Your task to perform on an android device: toggle notifications settings in the gmail app Image 0: 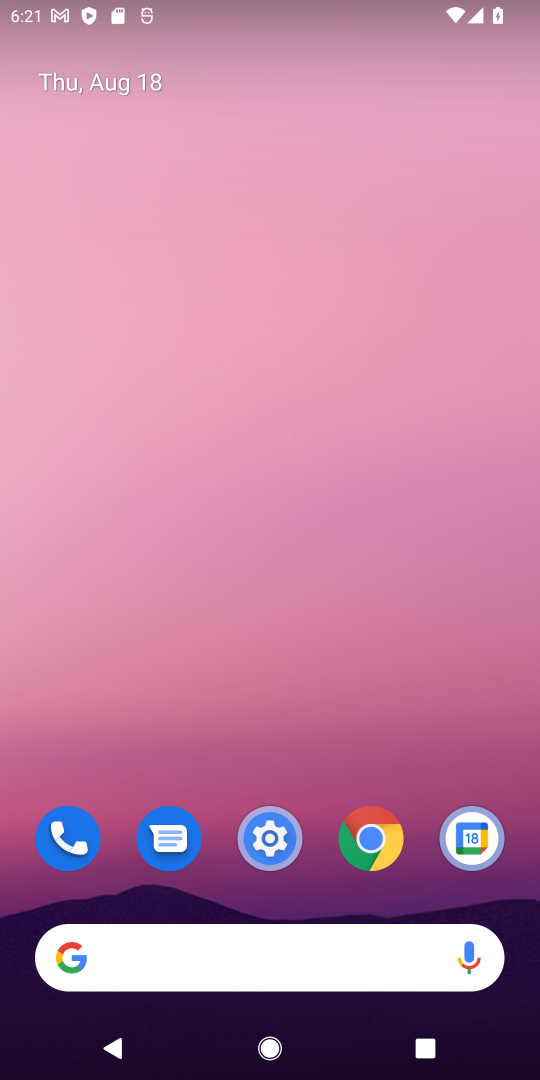
Step 0: press home button
Your task to perform on an android device: toggle notifications settings in the gmail app Image 1: 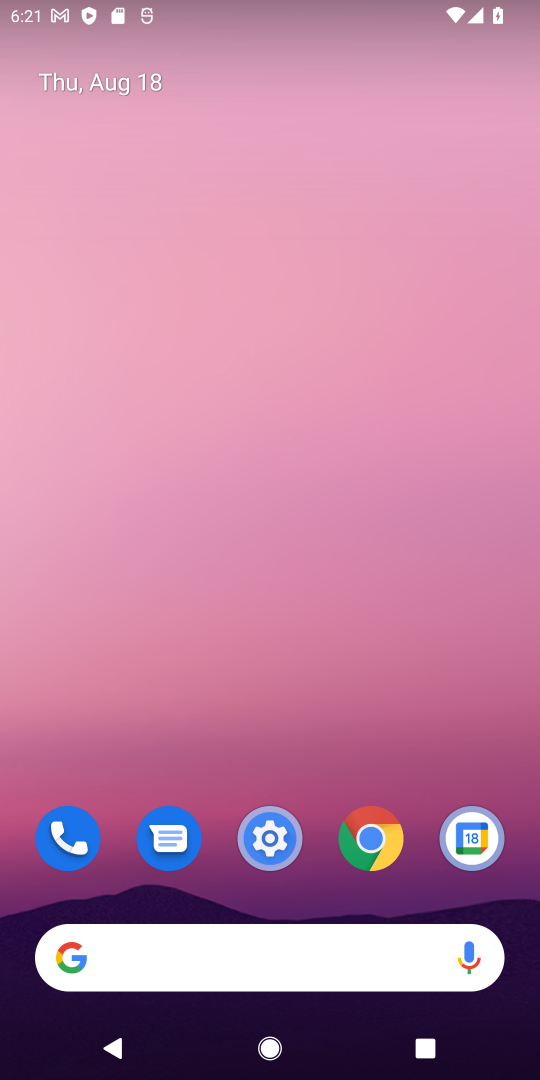
Step 1: drag from (334, 891) to (338, 21)
Your task to perform on an android device: toggle notifications settings in the gmail app Image 2: 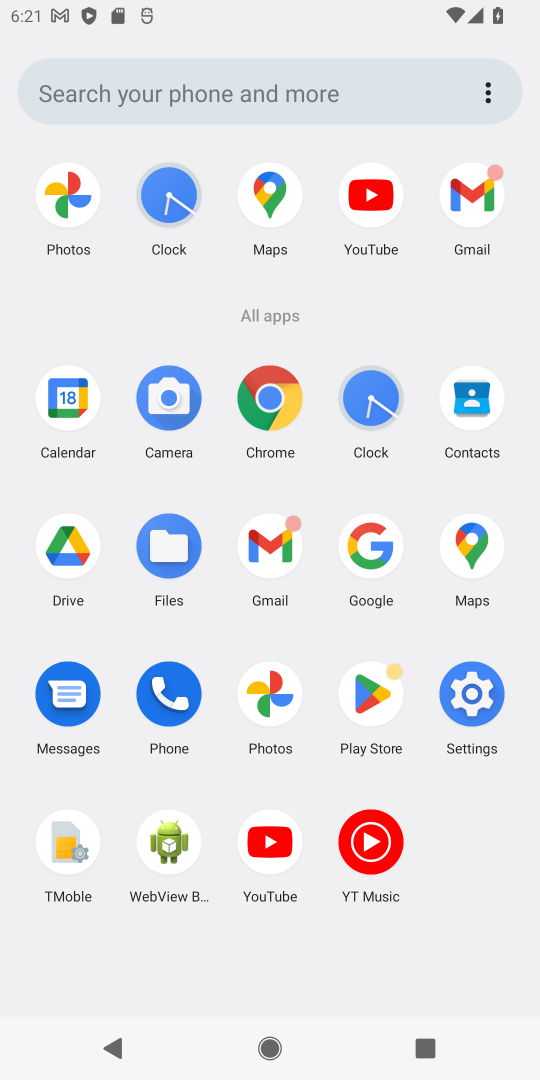
Step 2: click (467, 182)
Your task to perform on an android device: toggle notifications settings in the gmail app Image 3: 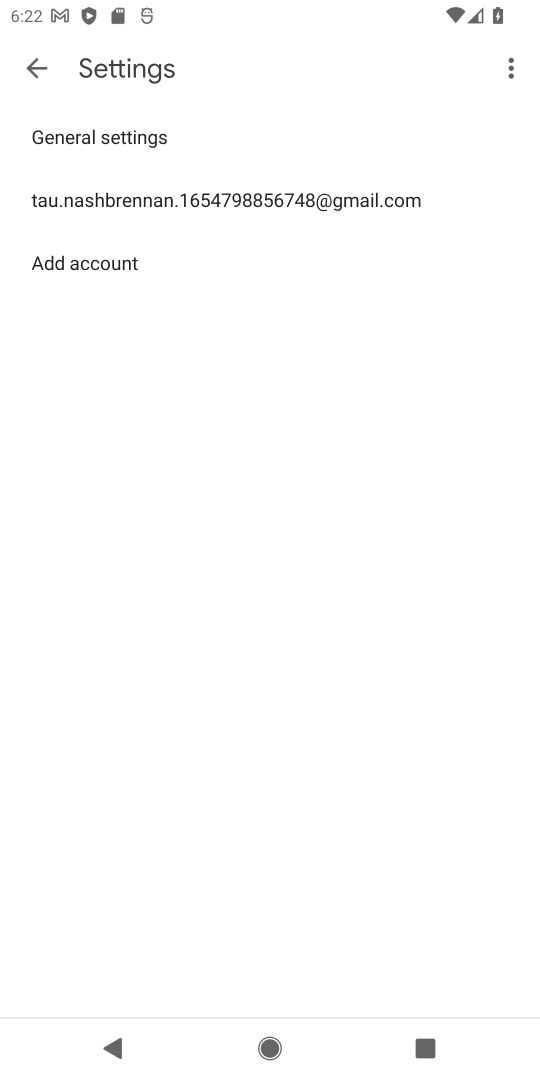
Step 3: click (202, 199)
Your task to perform on an android device: toggle notifications settings in the gmail app Image 4: 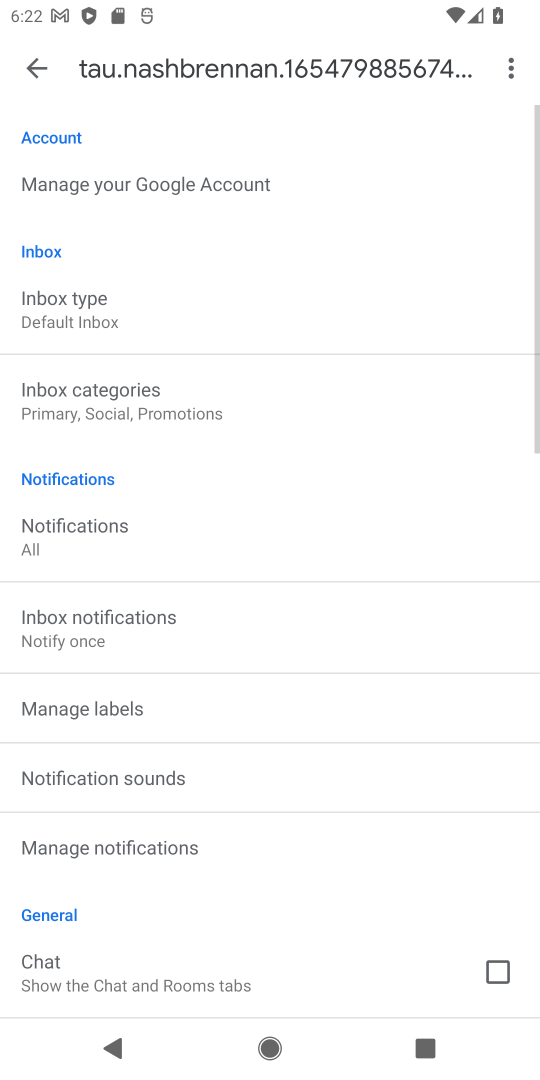
Step 4: click (119, 856)
Your task to perform on an android device: toggle notifications settings in the gmail app Image 5: 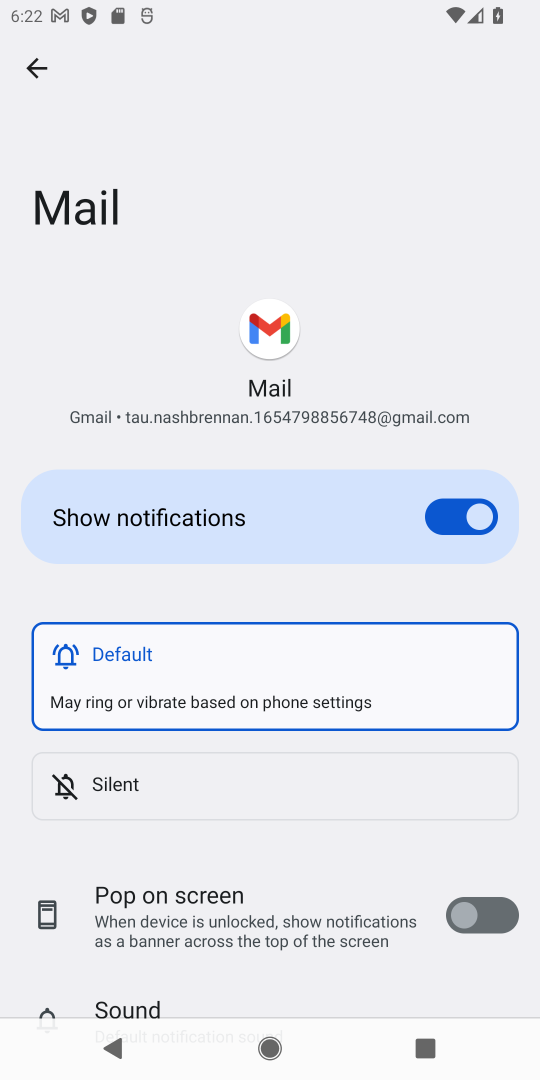
Step 5: click (471, 518)
Your task to perform on an android device: toggle notifications settings in the gmail app Image 6: 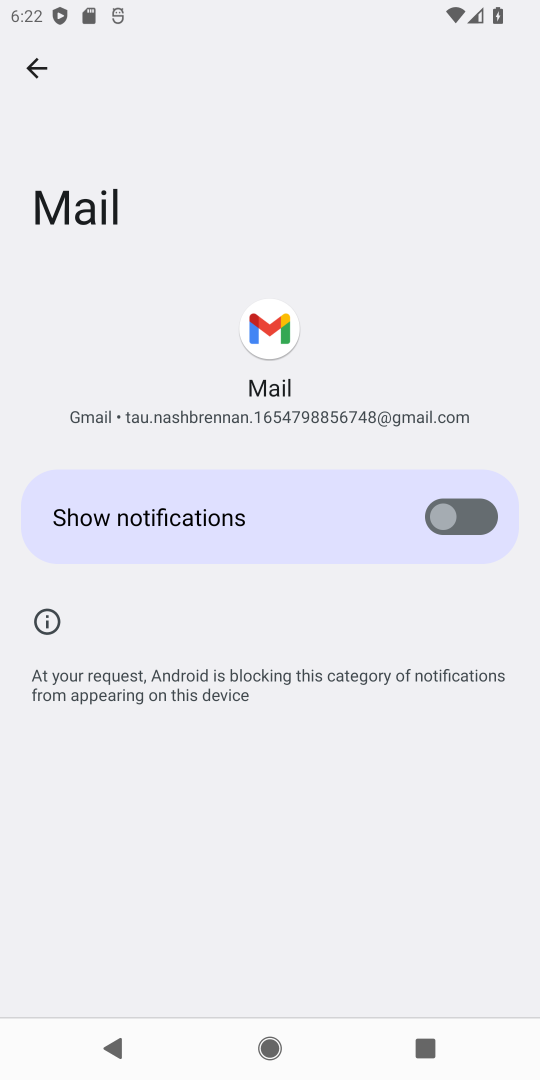
Step 6: task complete